Your task to perform on an android device: What's the weather going to be tomorrow? Image 0: 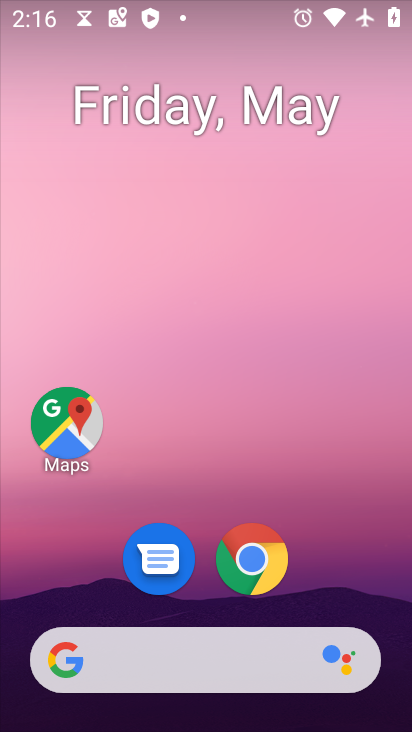
Step 0: click (247, 660)
Your task to perform on an android device: What's the weather going to be tomorrow? Image 1: 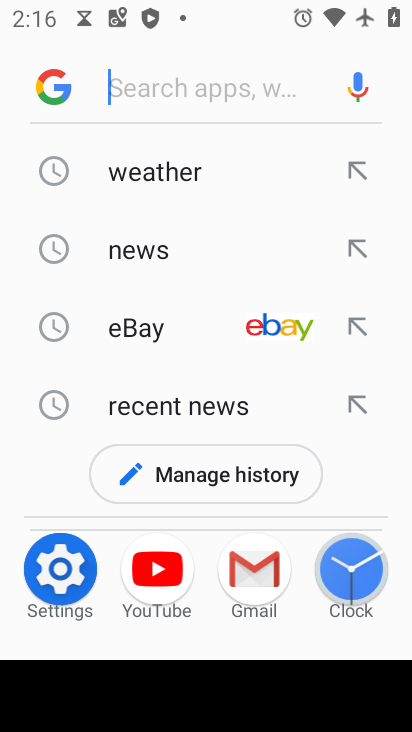
Step 1: type "whats the weather going to be tomorrow"
Your task to perform on an android device: What's the weather going to be tomorrow? Image 2: 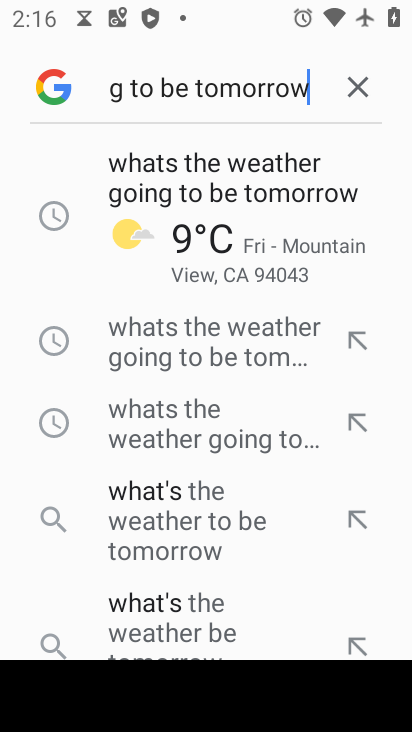
Step 2: click (233, 444)
Your task to perform on an android device: What's the weather going to be tomorrow? Image 3: 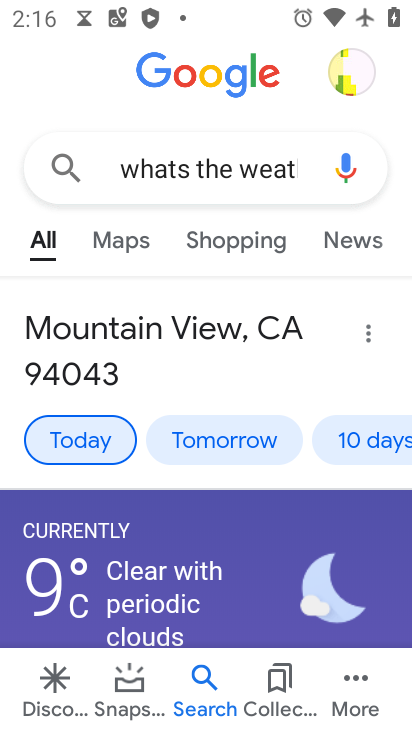
Step 3: task complete